Your task to perform on an android device: set an alarm Image 0: 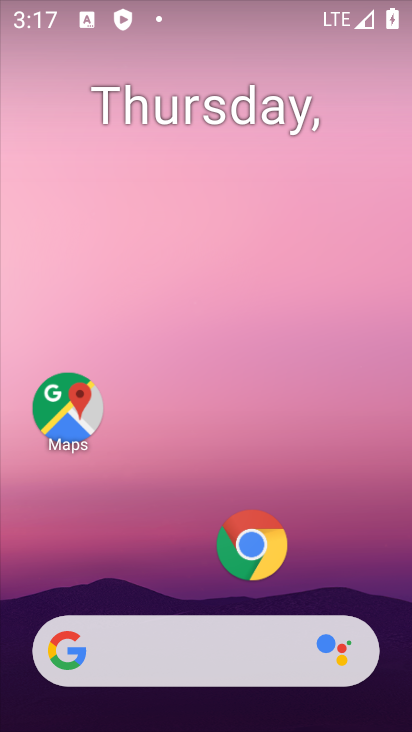
Step 0: drag from (248, 619) to (381, 13)
Your task to perform on an android device: set an alarm Image 1: 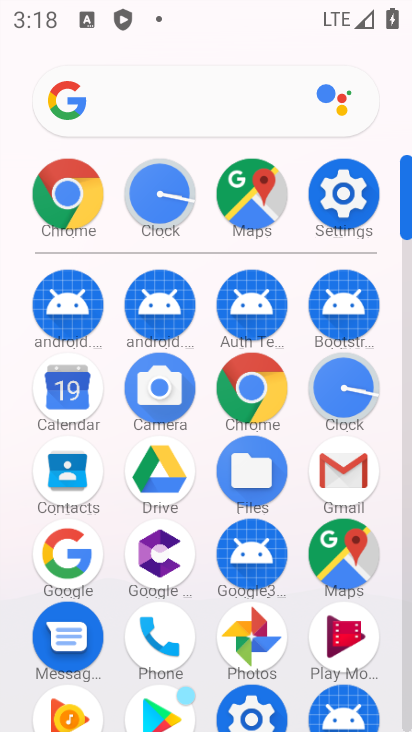
Step 1: click (334, 385)
Your task to perform on an android device: set an alarm Image 2: 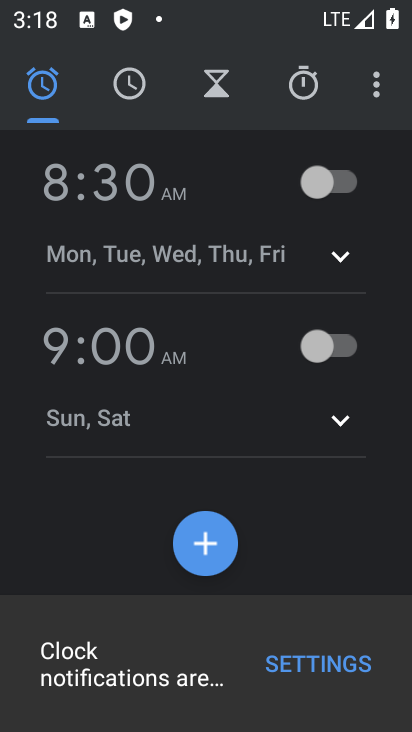
Step 2: click (349, 183)
Your task to perform on an android device: set an alarm Image 3: 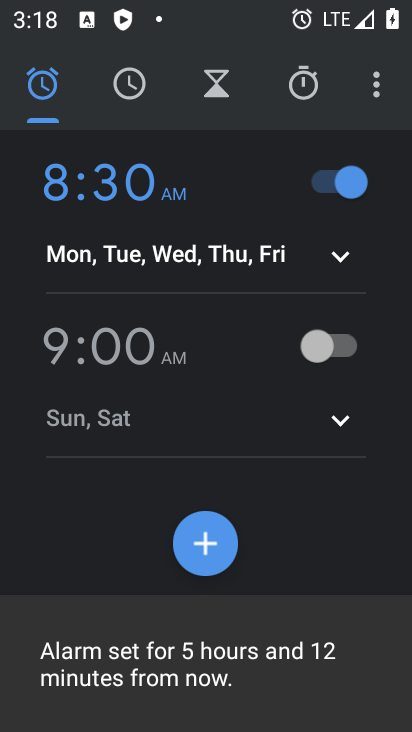
Step 3: task complete